Your task to perform on an android device: make emails show in primary in the gmail app Image 0: 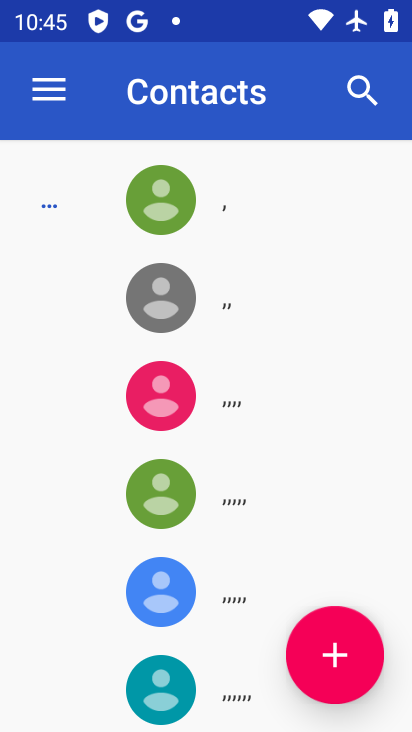
Step 0: press home button
Your task to perform on an android device: make emails show in primary in the gmail app Image 1: 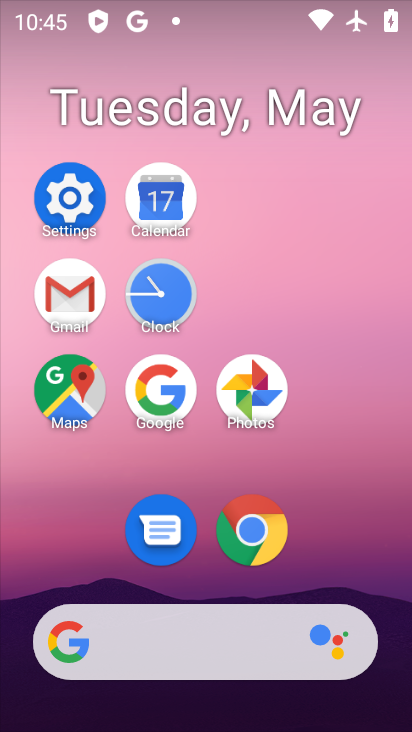
Step 1: click (90, 299)
Your task to perform on an android device: make emails show in primary in the gmail app Image 2: 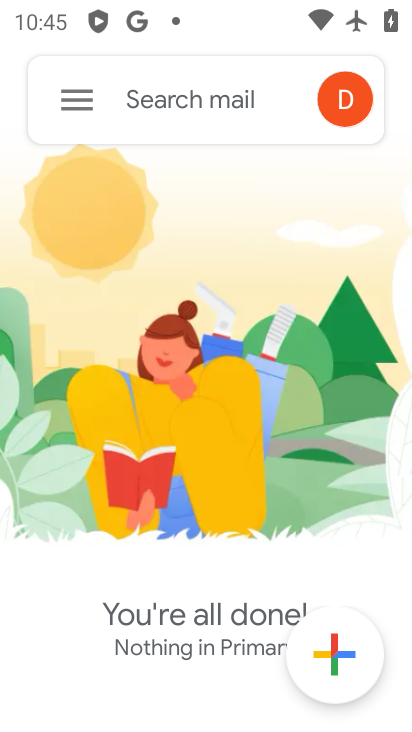
Step 2: click (65, 103)
Your task to perform on an android device: make emails show in primary in the gmail app Image 3: 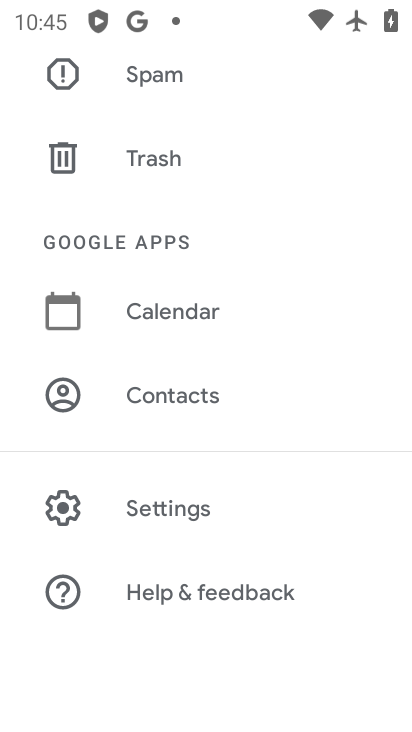
Step 3: click (206, 504)
Your task to perform on an android device: make emails show in primary in the gmail app Image 4: 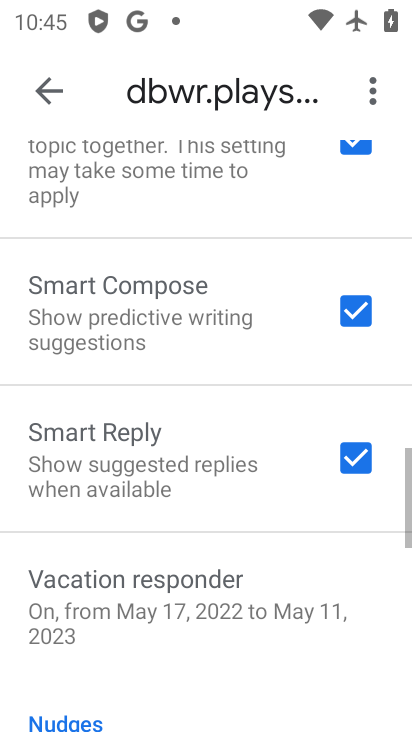
Step 4: drag from (207, 503) to (258, 144)
Your task to perform on an android device: make emails show in primary in the gmail app Image 5: 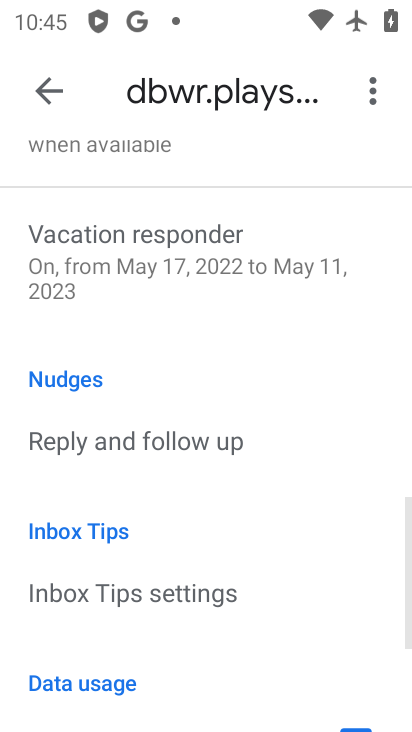
Step 5: drag from (253, 253) to (234, 600)
Your task to perform on an android device: make emails show in primary in the gmail app Image 6: 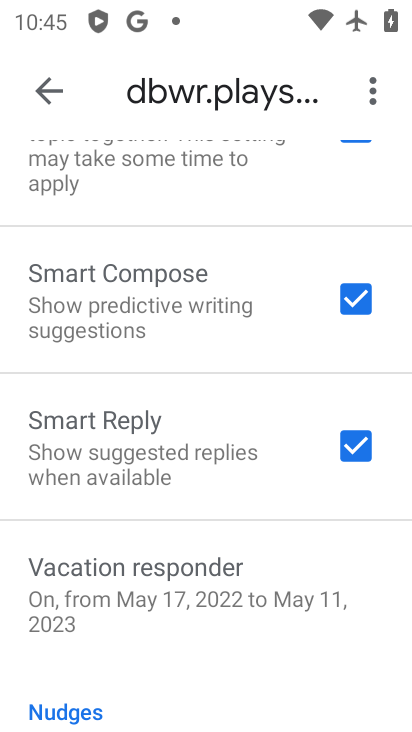
Step 6: drag from (236, 251) to (259, 608)
Your task to perform on an android device: make emails show in primary in the gmail app Image 7: 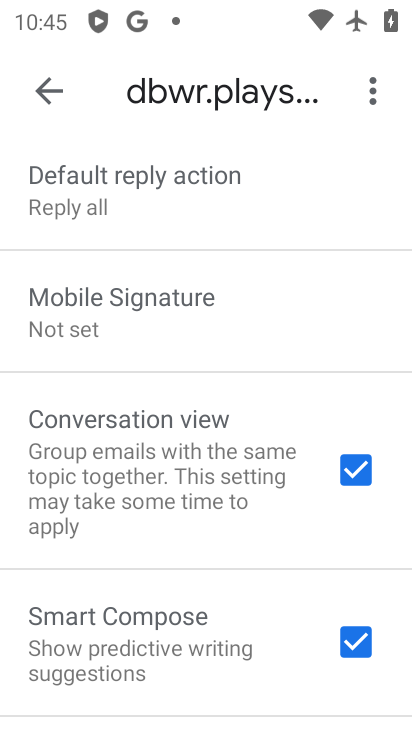
Step 7: drag from (227, 233) to (224, 602)
Your task to perform on an android device: make emails show in primary in the gmail app Image 8: 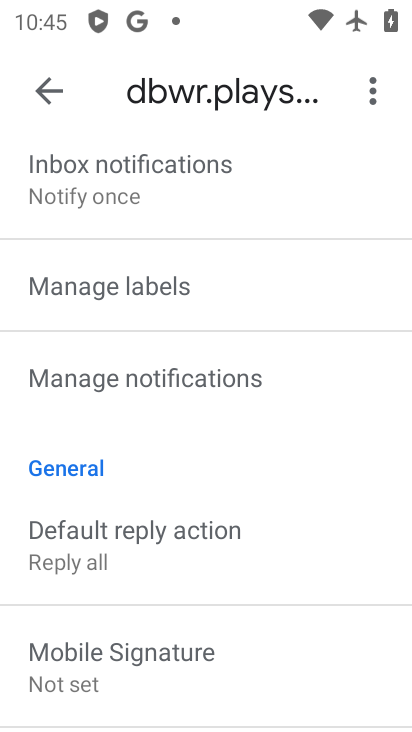
Step 8: drag from (225, 183) to (233, 527)
Your task to perform on an android device: make emails show in primary in the gmail app Image 9: 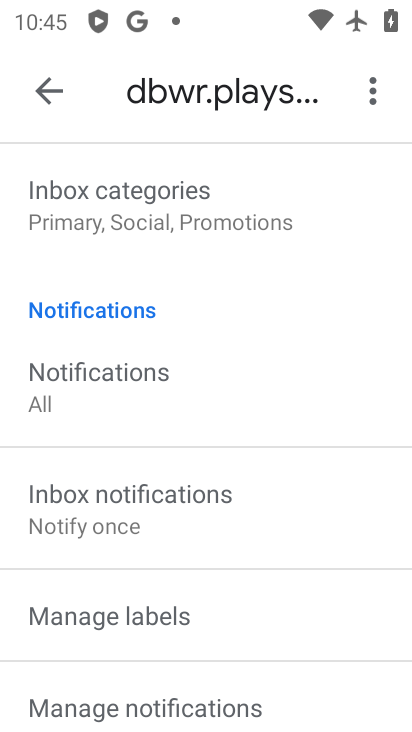
Step 9: drag from (238, 280) to (222, 488)
Your task to perform on an android device: make emails show in primary in the gmail app Image 10: 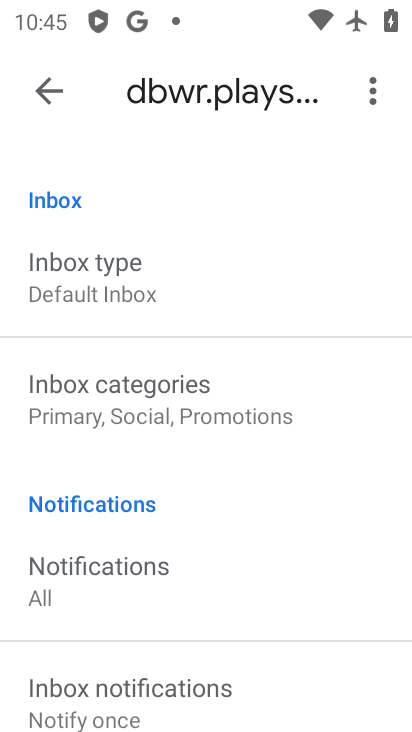
Step 10: click (203, 397)
Your task to perform on an android device: make emails show in primary in the gmail app Image 11: 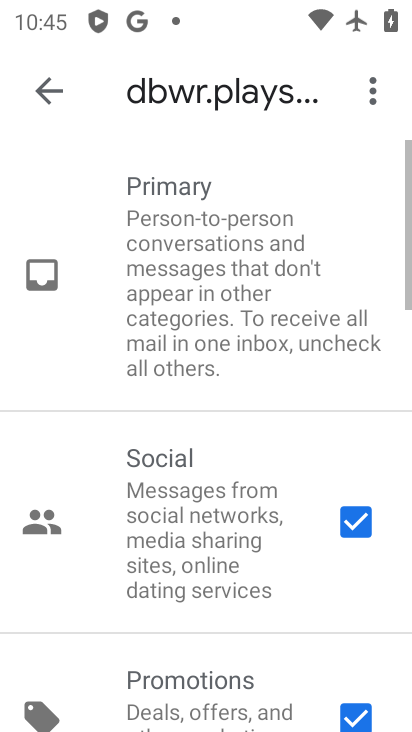
Step 11: click (358, 512)
Your task to perform on an android device: make emails show in primary in the gmail app Image 12: 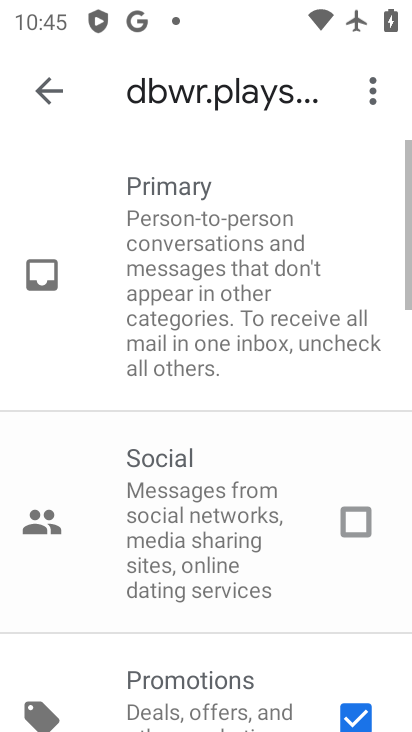
Step 12: click (352, 711)
Your task to perform on an android device: make emails show in primary in the gmail app Image 13: 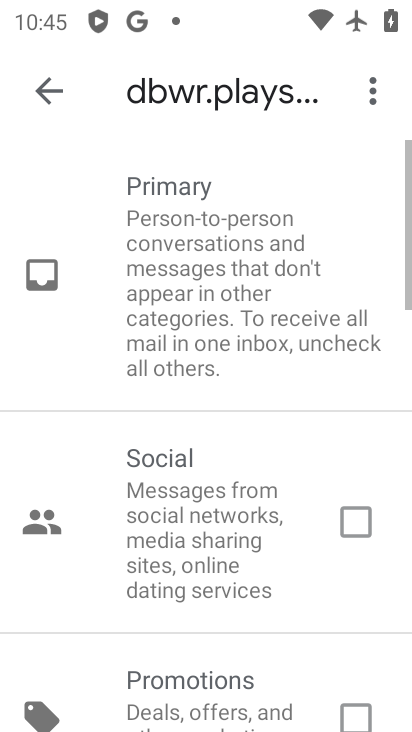
Step 13: click (58, 97)
Your task to perform on an android device: make emails show in primary in the gmail app Image 14: 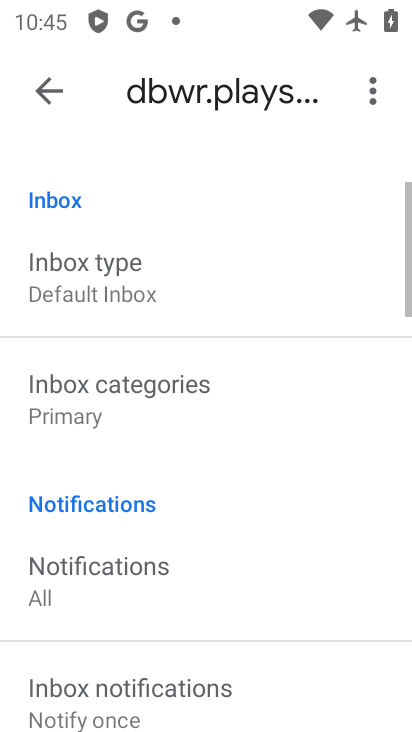
Step 14: task complete